Your task to perform on an android device: Check the weather Image 0: 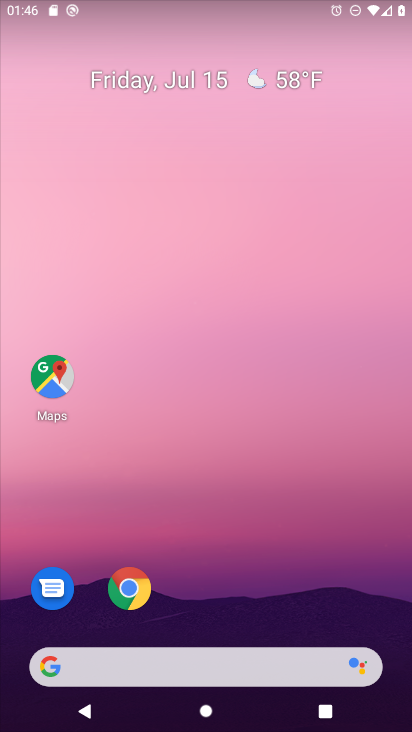
Step 0: click (291, 78)
Your task to perform on an android device: Check the weather Image 1: 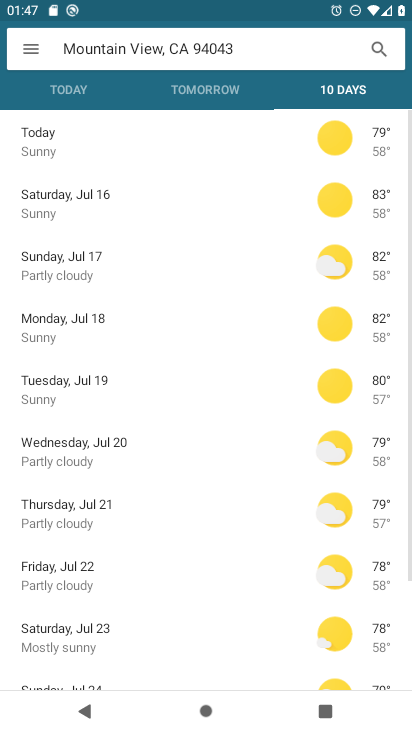
Step 1: click (58, 87)
Your task to perform on an android device: Check the weather Image 2: 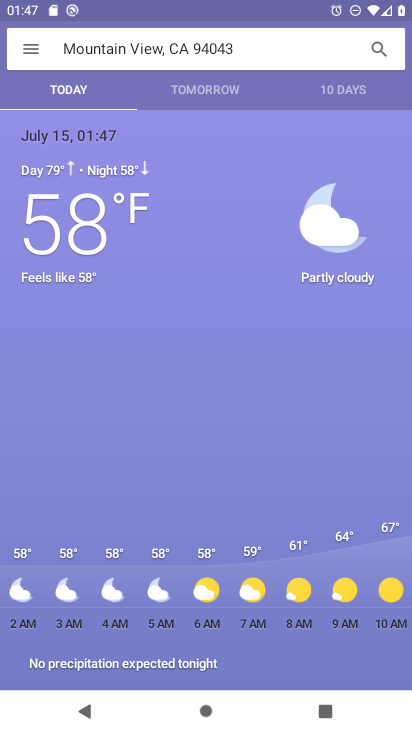
Step 2: task complete